Your task to perform on an android device: Search for a new mascara on Sephora Image 0: 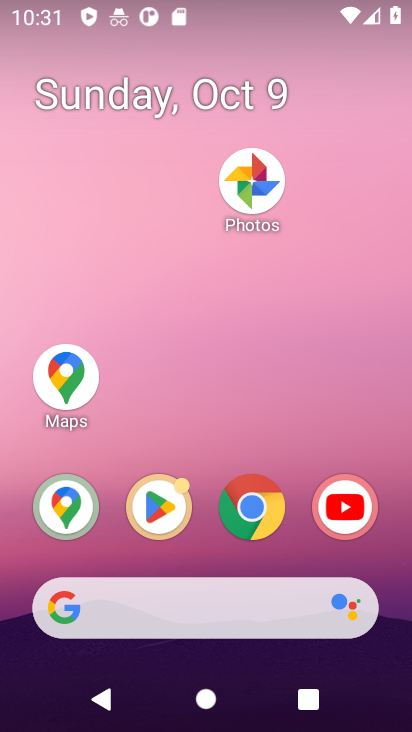
Step 0: drag from (212, 558) to (178, 0)
Your task to perform on an android device: Search for a new mascara on Sephora Image 1: 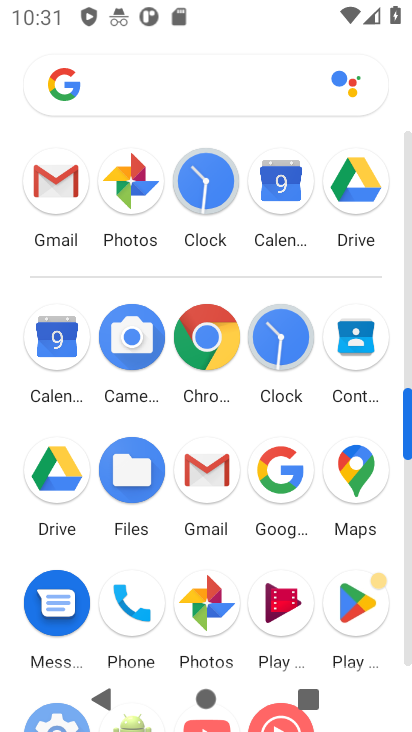
Step 1: click (209, 334)
Your task to perform on an android device: Search for a new mascara on Sephora Image 2: 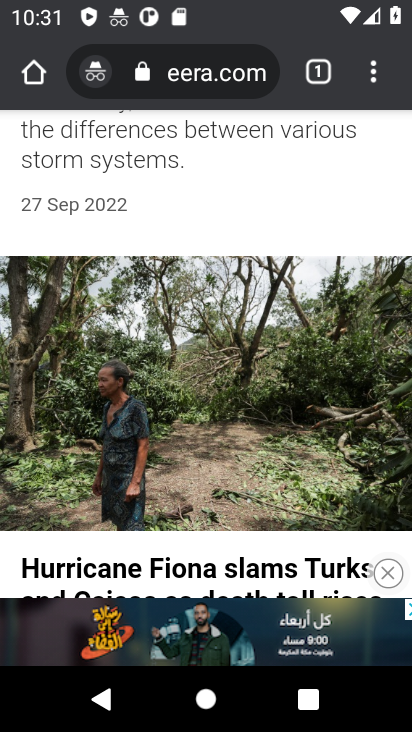
Step 2: click (200, 77)
Your task to perform on an android device: Search for a new mascara on Sephora Image 3: 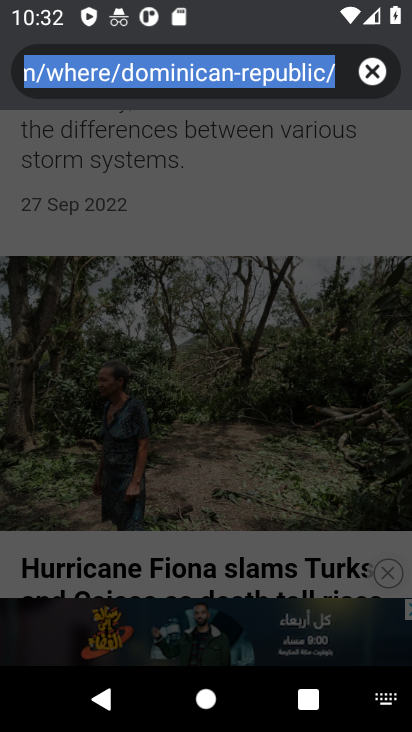
Step 3: type "a new mascara on Sephora"
Your task to perform on an android device: Search for a new mascara on Sephora Image 4: 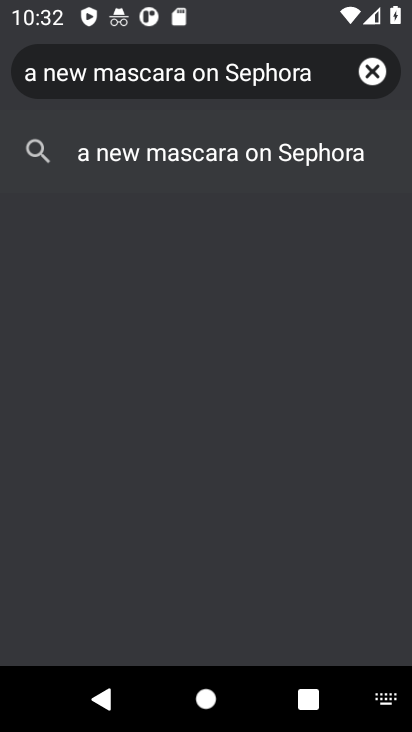
Step 4: press enter
Your task to perform on an android device: Search for a new mascara on Sephora Image 5: 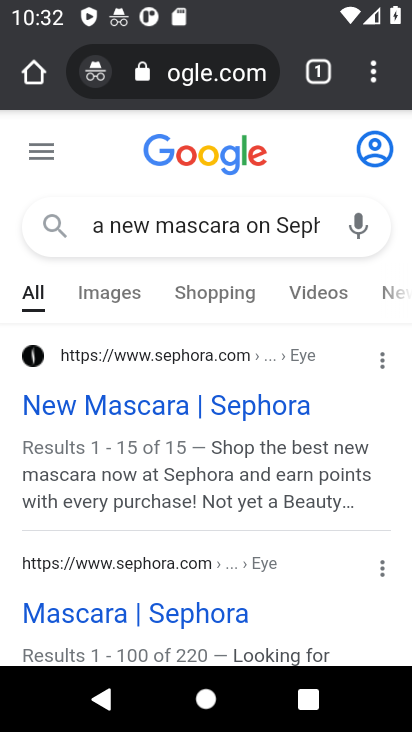
Step 5: click (144, 407)
Your task to perform on an android device: Search for a new mascara on Sephora Image 6: 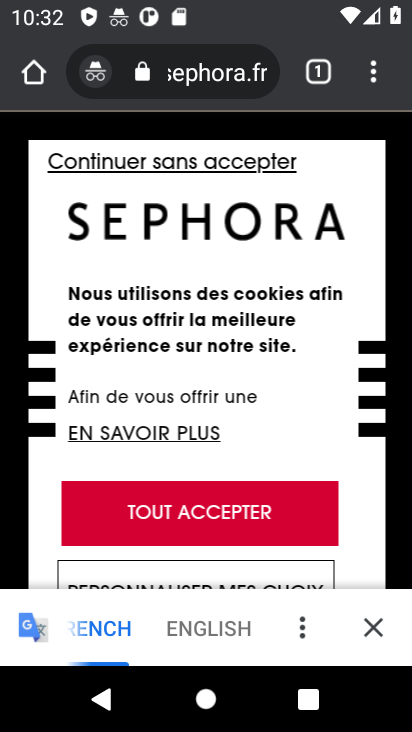
Step 6: drag from (225, 409) to (258, 99)
Your task to perform on an android device: Search for a new mascara on Sephora Image 7: 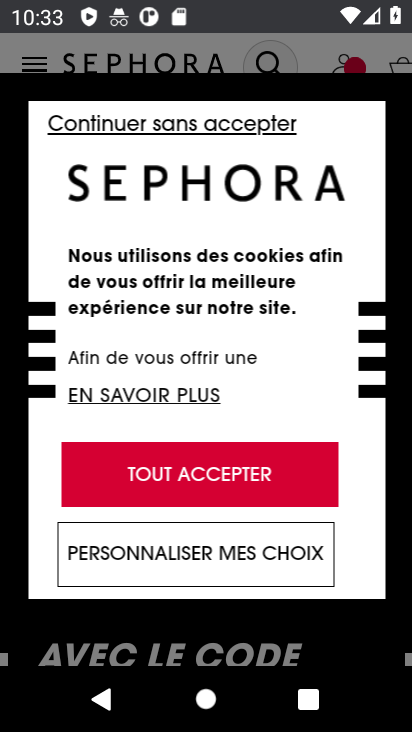
Step 7: click (228, 479)
Your task to perform on an android device: Search for a new mascara on Sephora Image 8: 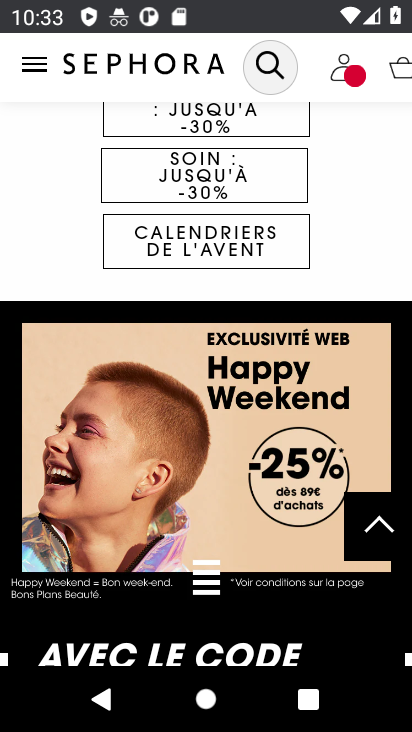
Step 8: task complete